Your task to perform on an android device: What's the weather? Image 0: 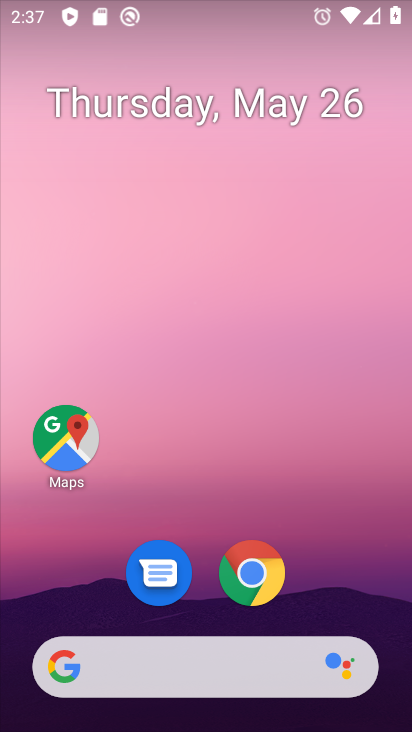
Step 0: drag from (330, 579) to (272, 113)
Your task to perform on an android device: What's the weather? Image 1: 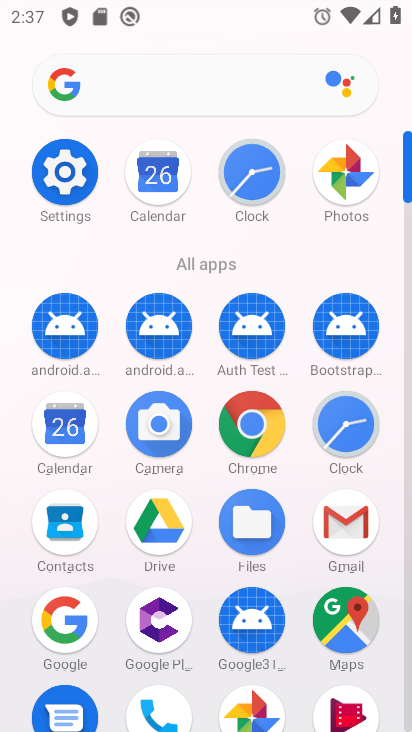
Step 1: drag from (196, 498) to (191, 307)
Your task to perform on an android device: What's the weather? Image 2: 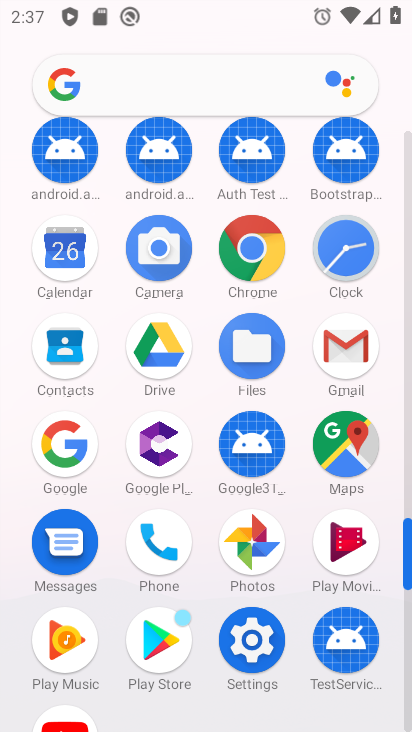
Step 2: drag from (212, 507) to (209, 326)
Your task to perform on an android device: What's the weather? Image 3: 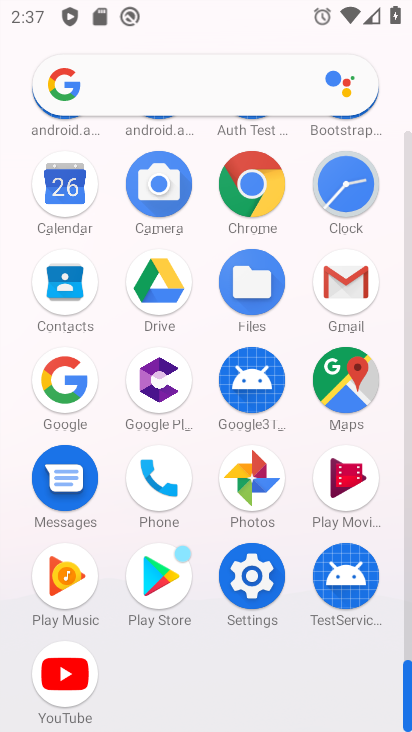
Step 3: click (57, 382)
Your task to perform on an android device: What's the weather? Image 4: 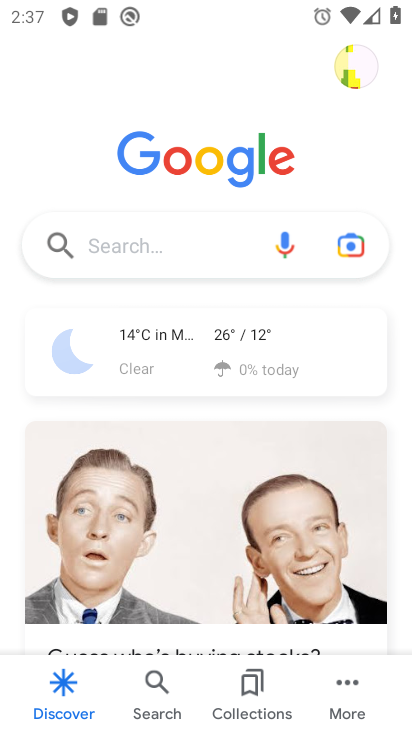
Step 4: click (156, 353)
Your task to perform on an android device: What's the weather? Image 5: 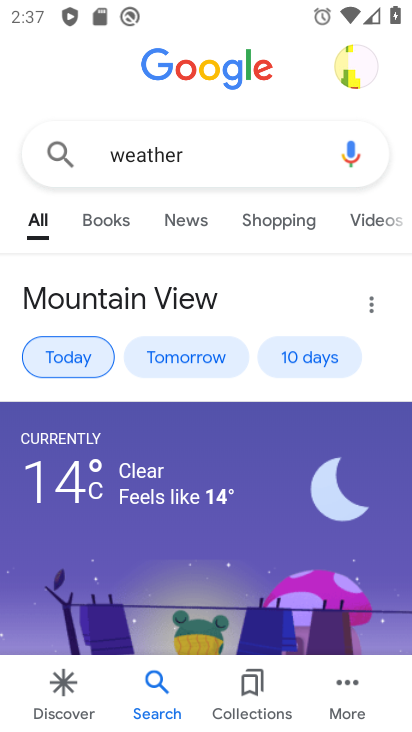
Step 5: task complete